Your task to perform on an android device: find snoozed emails in the gmail app Image 0: 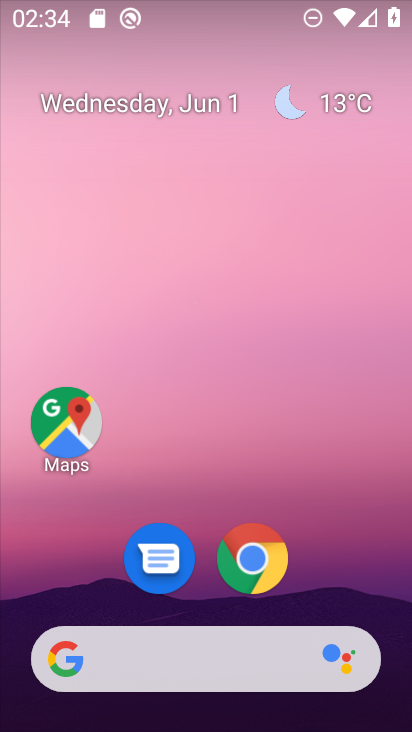
Step 0: drag from (391, 689) to (321, 32)
Your task to perform on an android device: find snoozed emails in the gmail app Image 1: 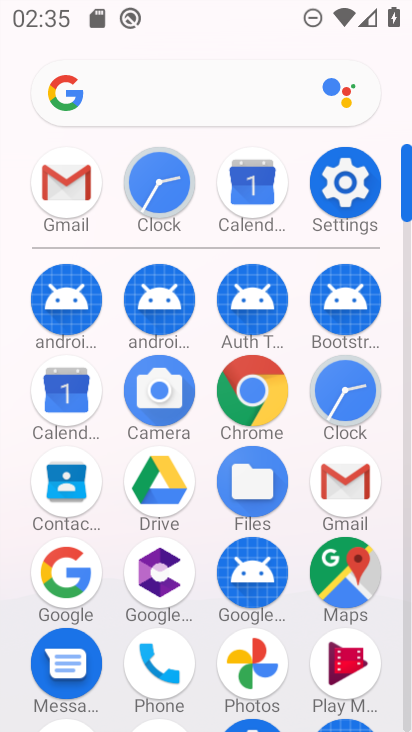
Step 1: click (343, 488)
Your task to perform on an android device: find snoozed emails in the gmail app Image 2: 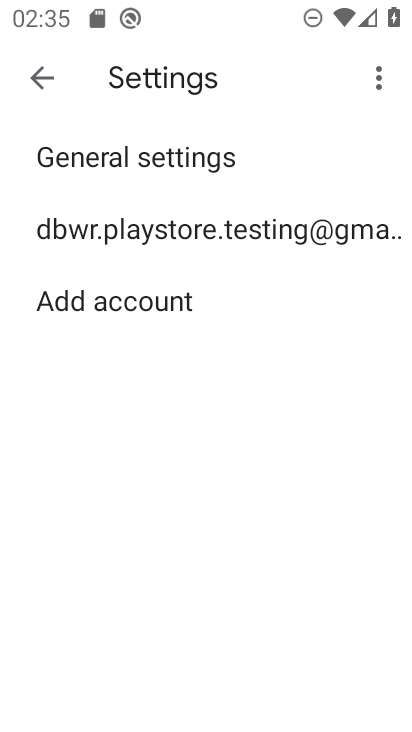
Step 2: click (39, 83)
Your task to perform on an android device: find snoozed emails in the gmail app Image 3: 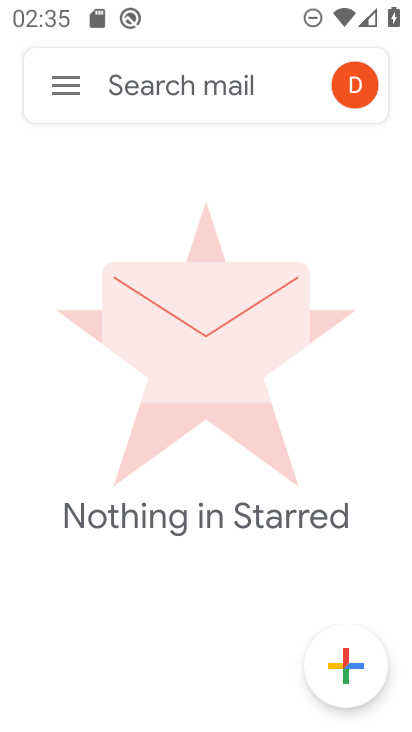
Step 3: click (50, 86)
Your task to perform on an android device: find snoozed emails in the gmail app Image 4: 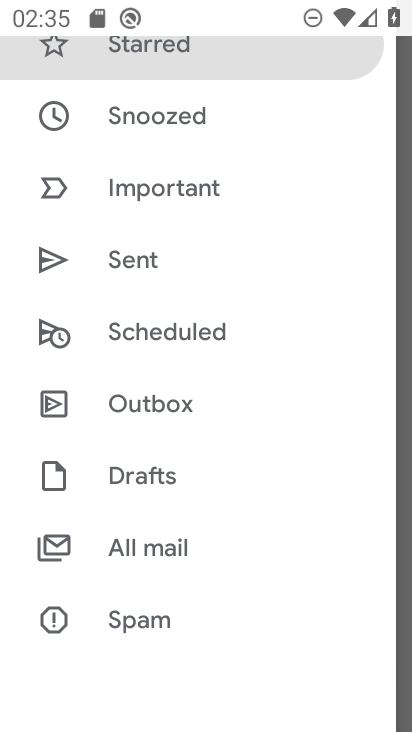
Step 4: click (160, 116)
Your task to perform on an android device: find snoozed emails in the gmail app Image 5: 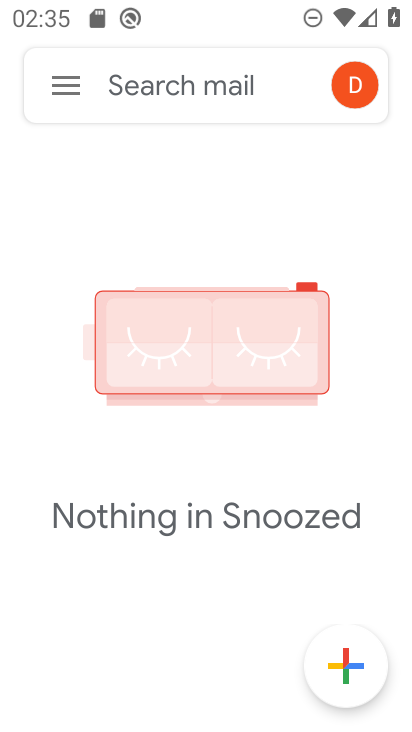
Step 5: task complete